Your task to perform on an android device: check out phone information Image 0: 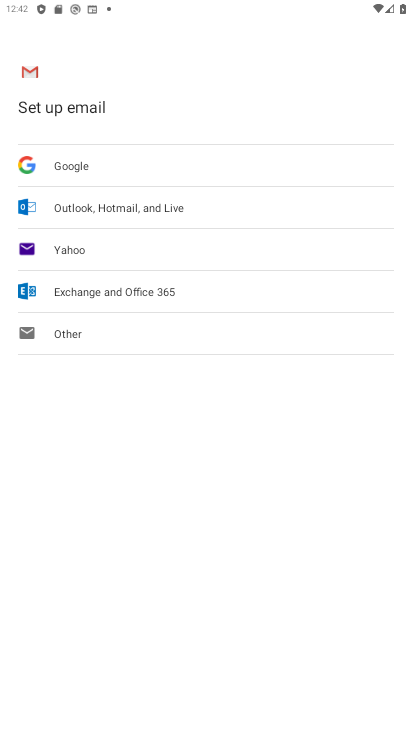
Step 0: press home button
Your task to perform on an android device: check out phone information Image 1: 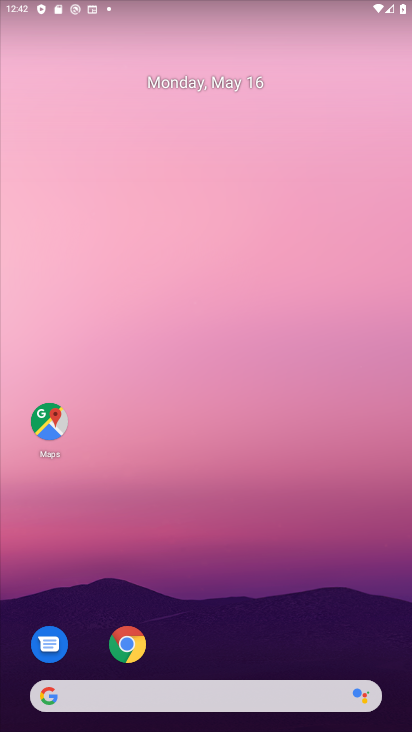
Step 1: drag from (108, 695) to (210, 225)
Your task to perform on an android device: check out phone information Image 2: 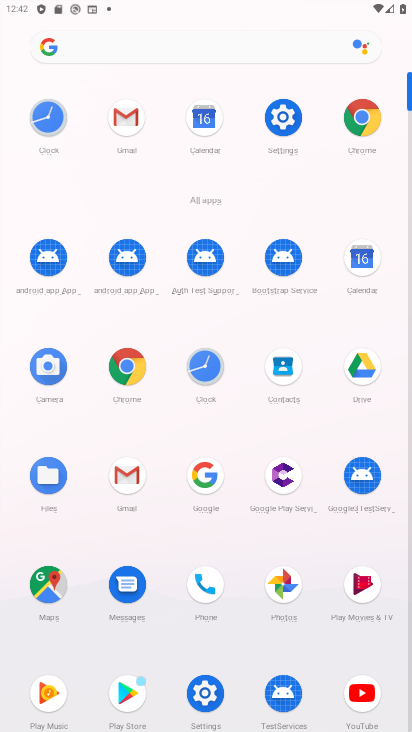
Step 2: click (204, 701)
Your task to perform on an android device: check out phone information Image 3: 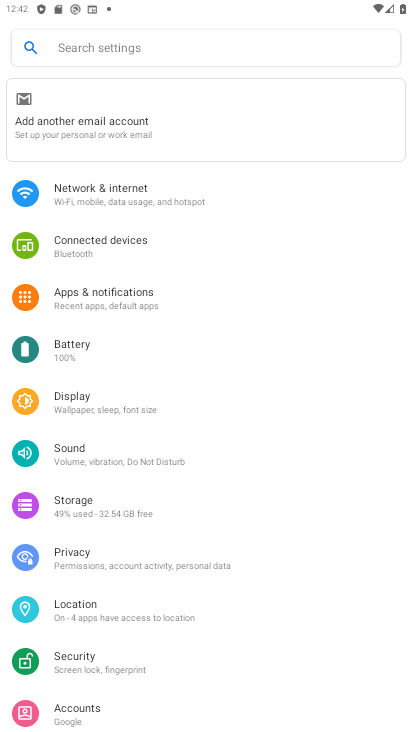
Step 3: drag from (189, 670) to (174, 272)
Your task to perform on an android device: check out phone information Image 4: 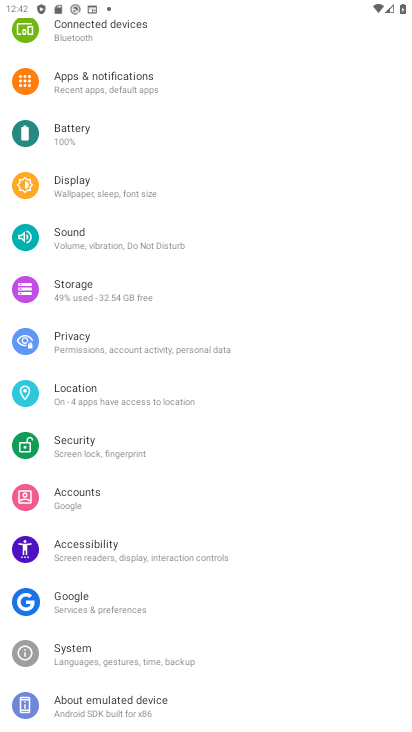
Step 4: click (80, 702)
Your task to perform on an android device: check out phone information Image 5: 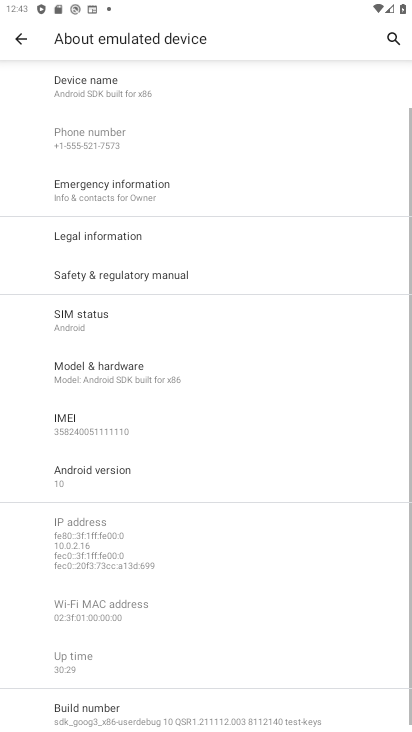
Step 5: task complete